Your task to perform on an android device: change notifications settings Image 0: 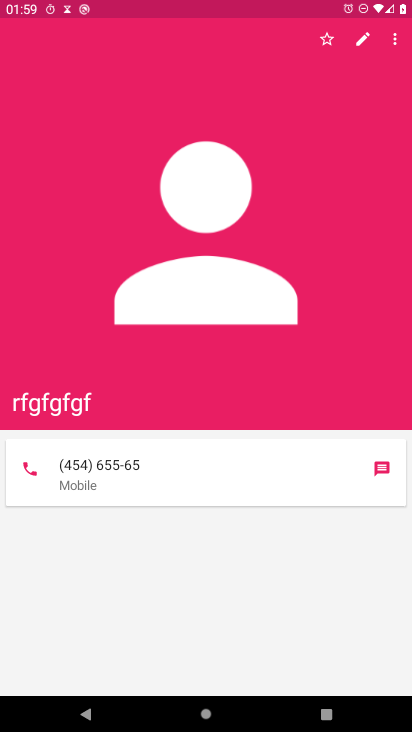
Step 0: press home button
Your task to perform on an android device: change notifications settings Image 1: 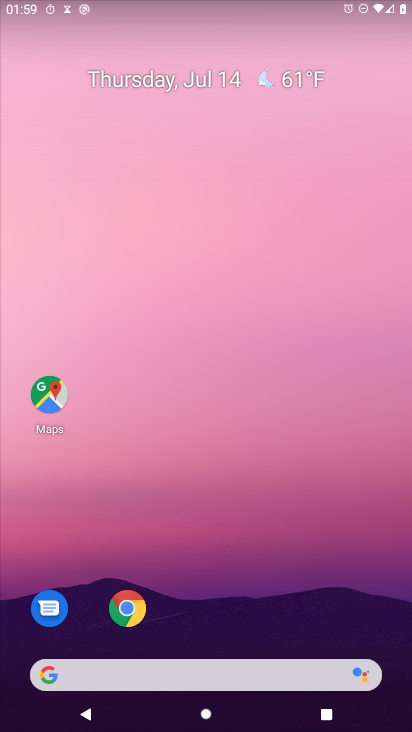
Step 1: drag from (219, 553) to (249, 45)
Your task to perform on an android device: change notifications settings Image 2: 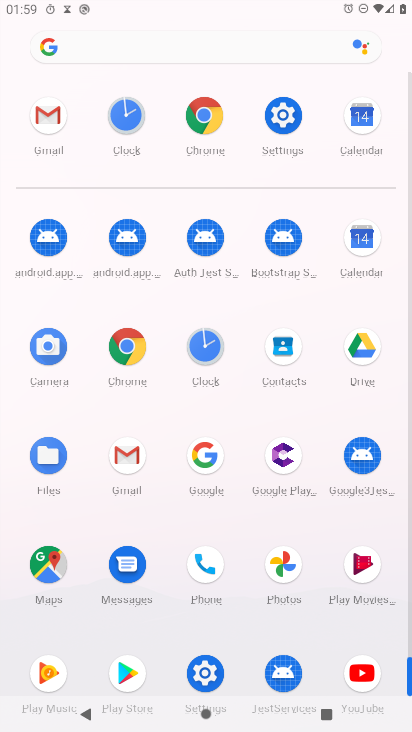
Step 2: click (269, 121)
Your task to perform on an android device: change notifications settings Image 3: 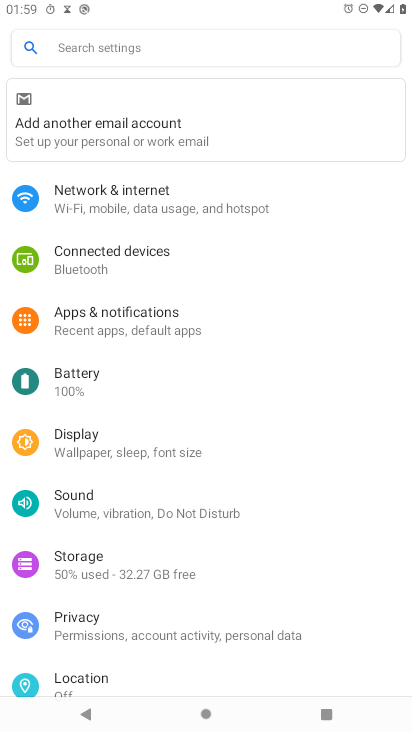
Step 3: click (118, 315)
Your task to perform on an android device: change notifications settings Image 4: 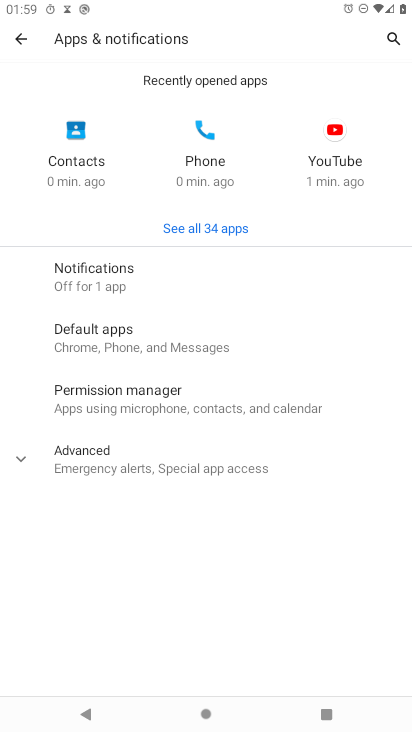
Step 4: click (82, 264)
Your task to perform on an android device: change notifications settings Image 5: 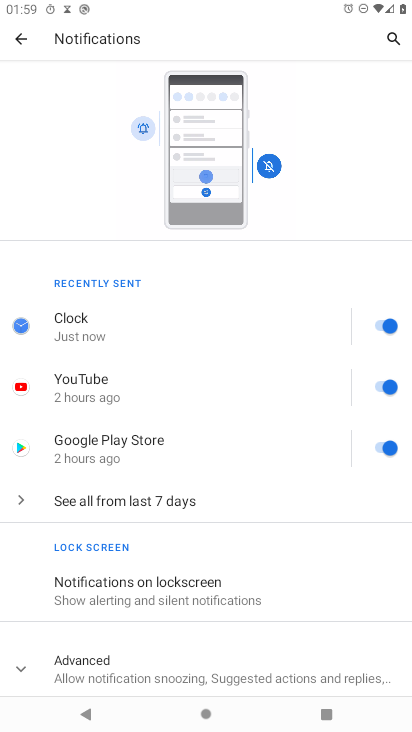
Step 5: drag from (11, 582) to (19, 308)
Your task to perform on an android device: change notifications settings Image 6: 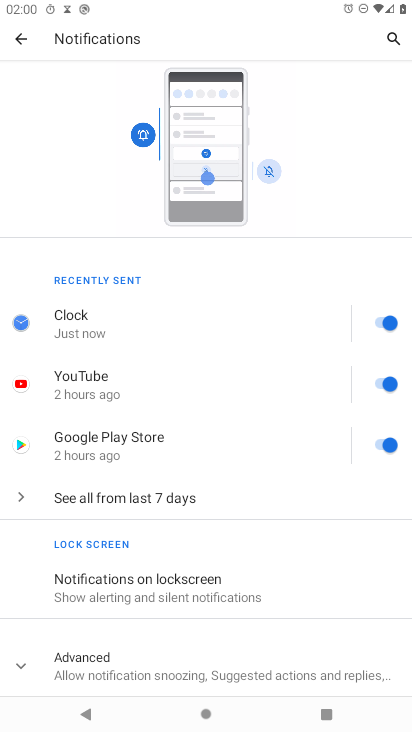
Step 6: click (271, 169)
Your task to perform on an android device: change notifications settings Image 7: 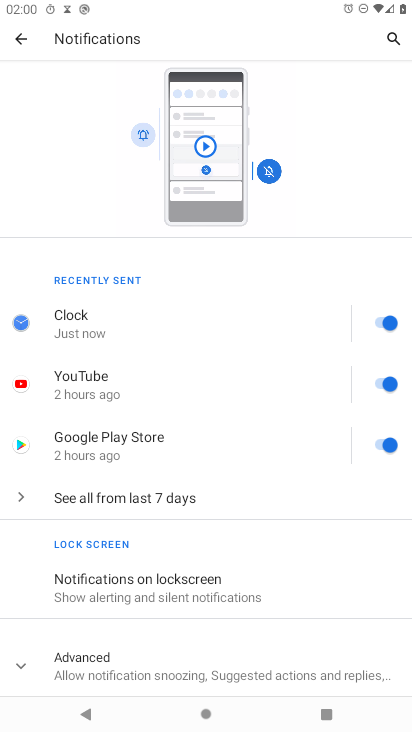
Step 7: task complete